Your task to perform on an android device: Show the shopping cart on walmart. Search for razer naga on walmart, select the first entry, and add it to the cart. Image 0: 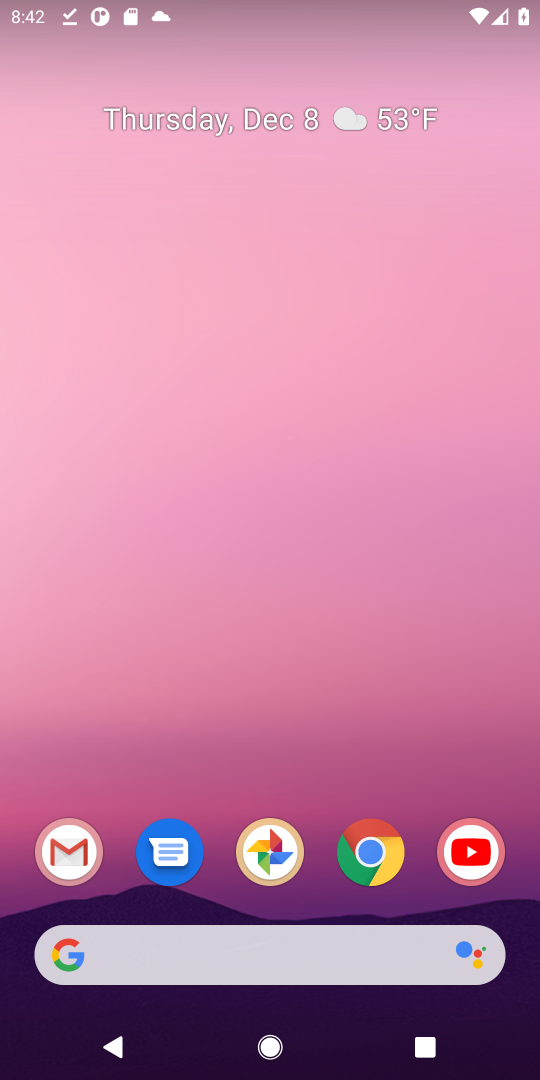
Step 0: click (238, 955)
Your task to perform on an android device: Show the shopping cart on walmart. Search for razer naga on walmart, select the first entry, and add it to the cart. Image 1: 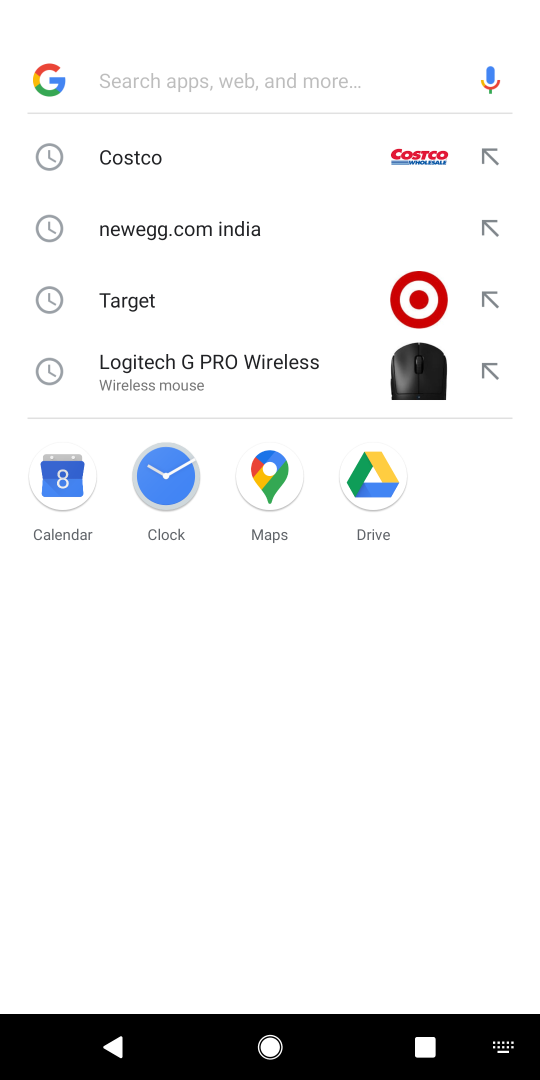
Step 1: type "walmart"
Your task to perform on an android device: Show the shopping cart on walmart. Search for razer naga on walmart, select the first entry, and add it to the cart. Image 2: 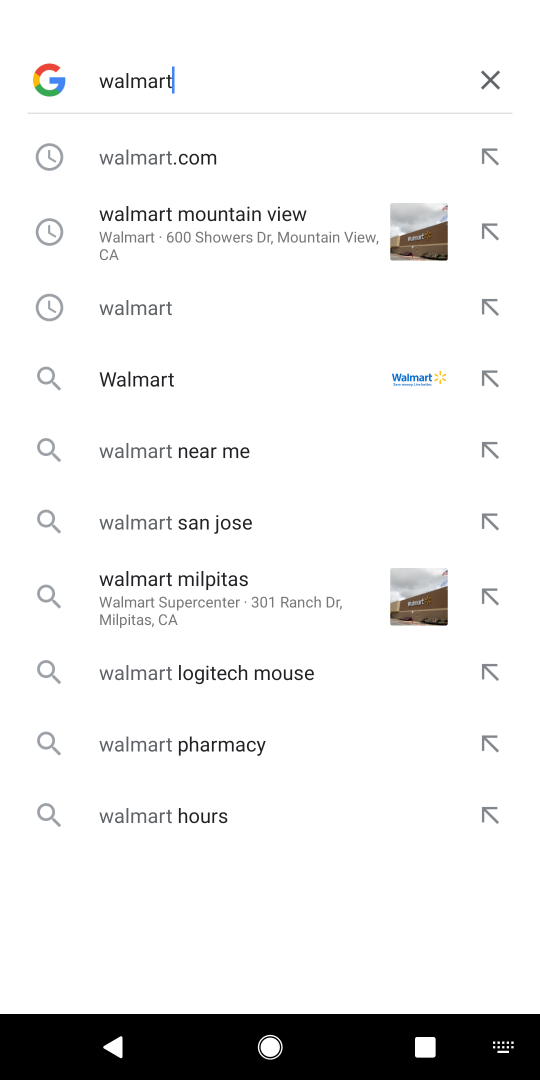
Step 2: click (154, 163)
Your task to perform on an android device: Show the shopping cart on walmart. Search for razer naga on walmart, select the first entry, and add it to the cart. Image 3: 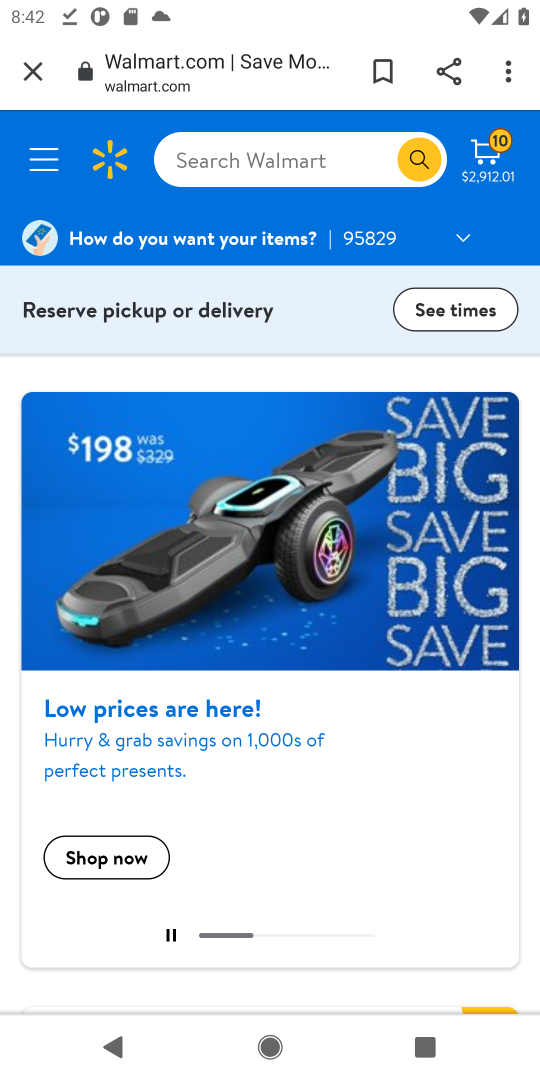
Step 3: click (207, 163)
Your task to perform on an android device: Show the shopping cart on walmart. Search for razer naga on walmart, select the first entry, and add it to the cart. Image 4: 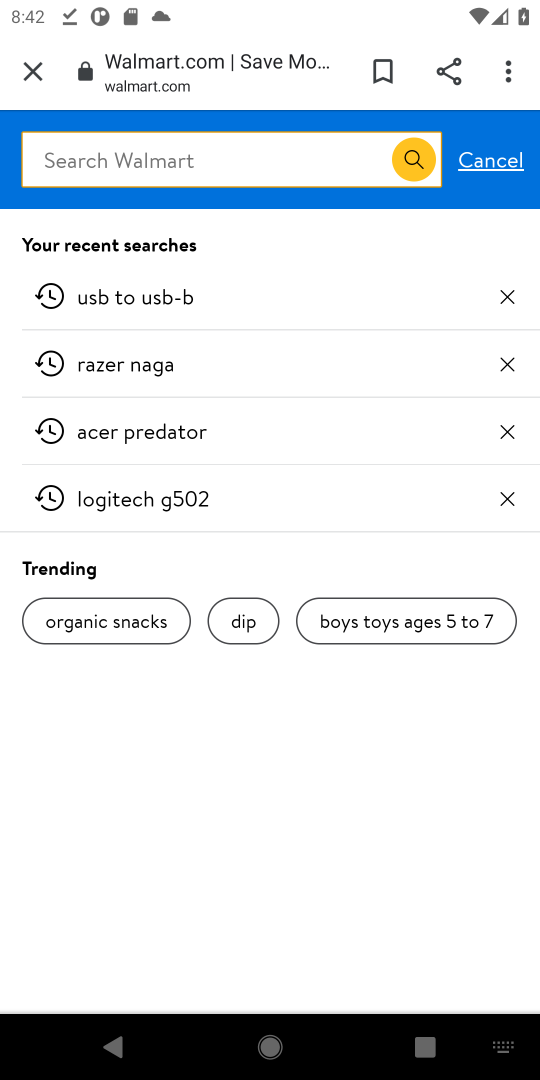
Step 4: type "razer naga"
Your task to perform on an android device: Show the shopping cart on walmart. Search for razer naga on walmart, select the first entry, and add it to the cart. Image 5: 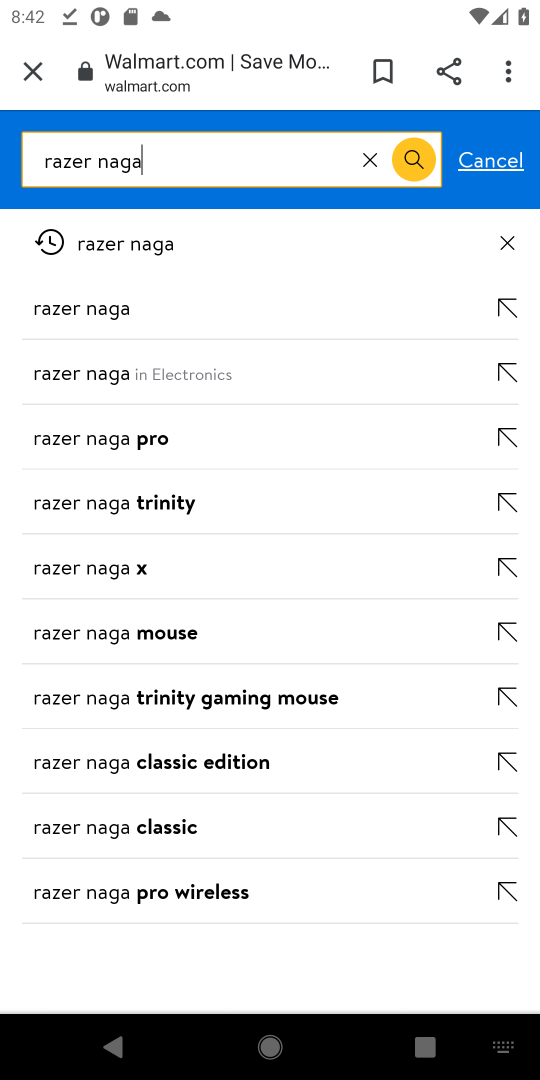
Step 5: click (88, 315)
Your task to perform on an android device: Show the shopping cart on walmart. Search for razer naga on walmart, select the first entry, and add it to the cart. Image 6: 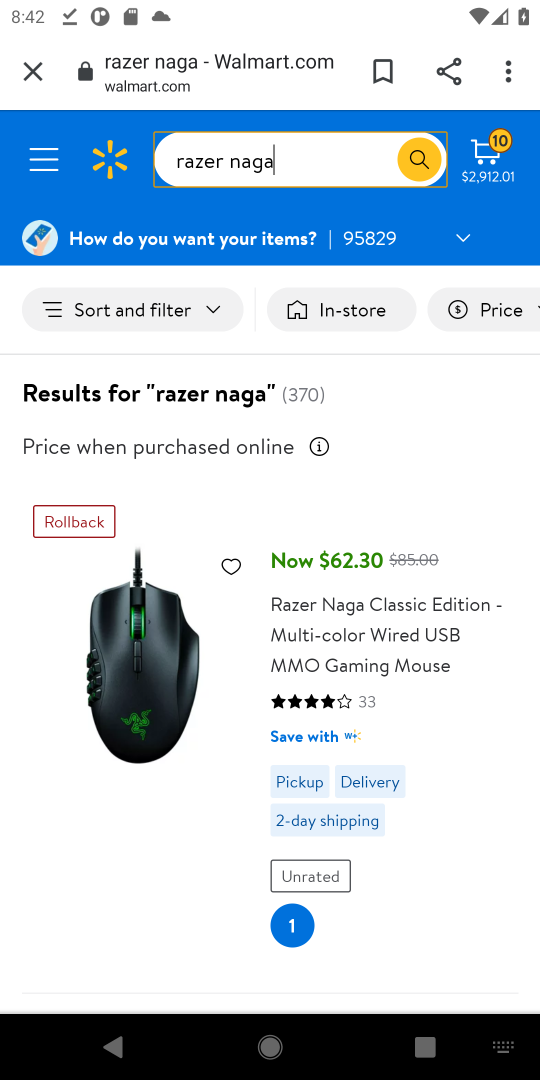
Step 6: drag from (406, 867) to (375, 511)
Your task to perform on an android device: Show the shopping cart on walmart. Search for razer naga on walmart, select the first entry, and add it to the cart. Image 7: 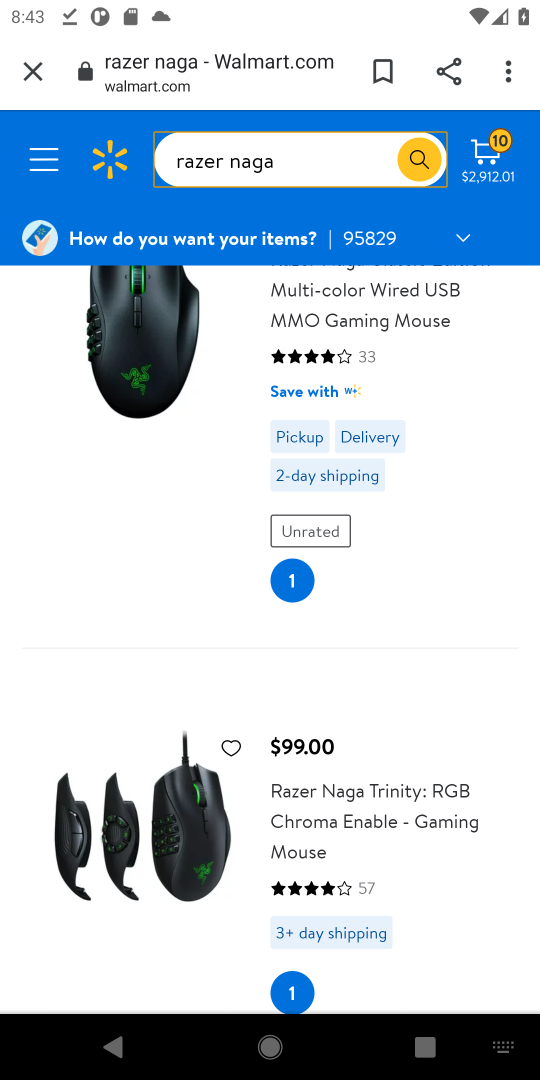
Step 7: click (360, 321)
Your task to perform on an android device: Show the shopping cart on walmart. Search for razer naga on walmart, select the first entry, and add it to the cart. Image 8: 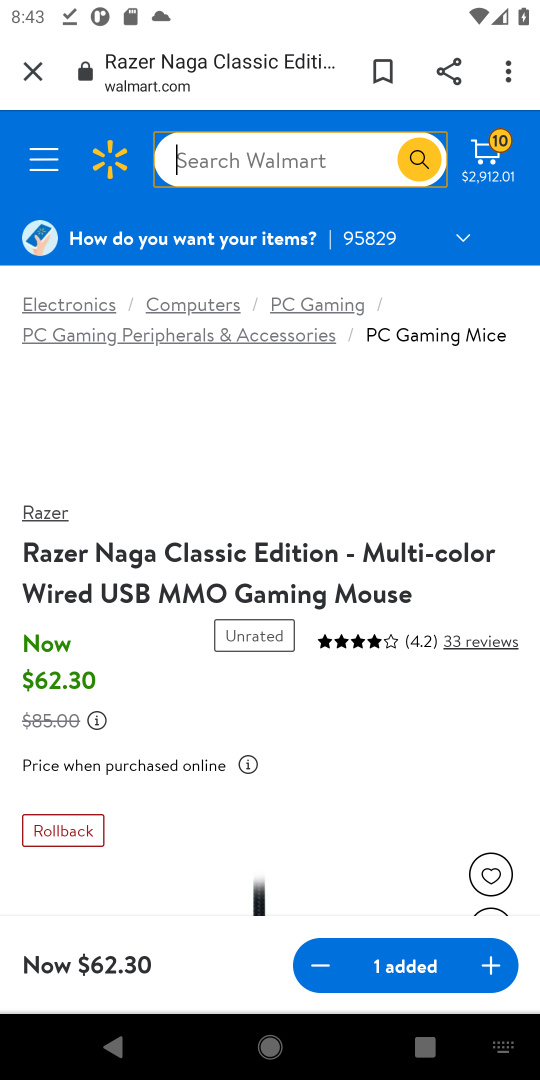
Step 8: click (316, 974)
Your task to perform on an android device: Show the shopping cart on walmart. Search for razer naga on walmart, select the first entry, and add it to the cart. Image 9: 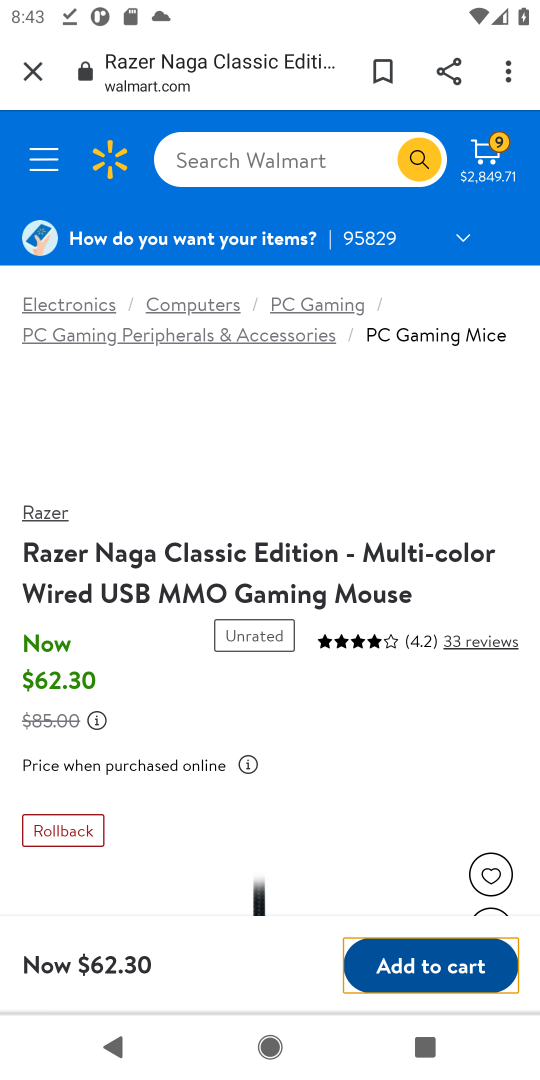
Step 9: click (427, 974)
Your task to perform on an android device: Show the shopping cart on walmart. Search for razer naga on walmart, select the first entry, and add it to the cart. Image 10: 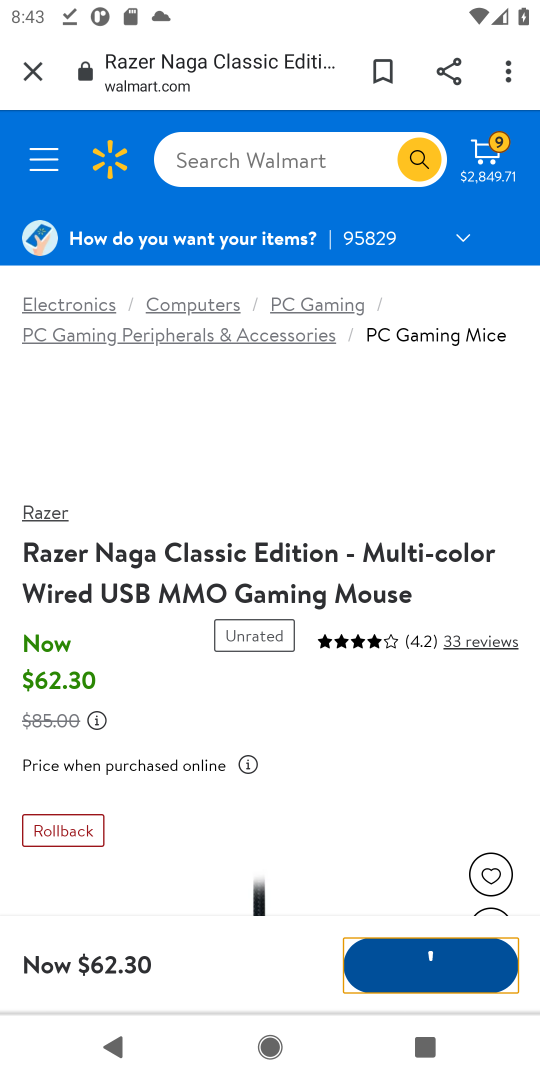
Step 10: task complete